Your task to perform on an android device: check out phone information Image 0: 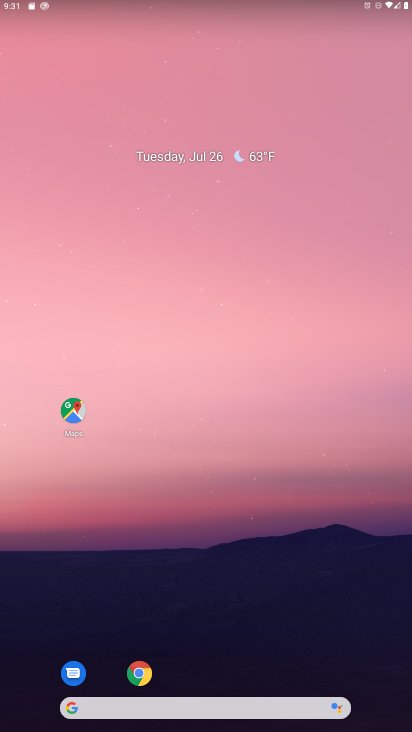
Step 0: drag from (351, 588) to (164, 8)
Your task to perform on an android device: check out phone information Image 1: 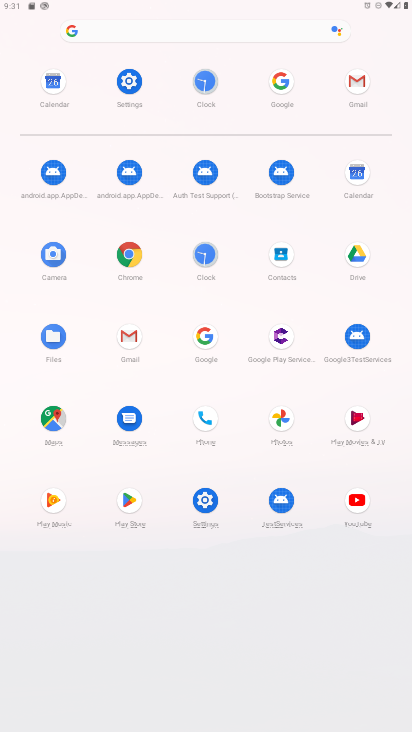
Step 1: click (199, 503)
Your task to perform on an android device: check out phone information Image 2: 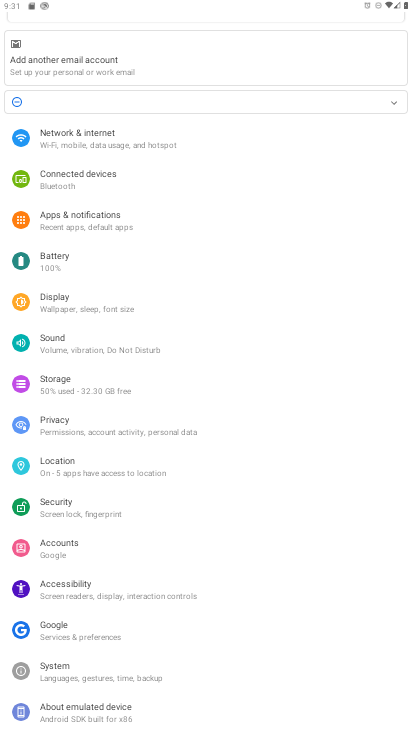
Step 2: task complete